Your task to perform on an android device: Open internet settings Image 0: 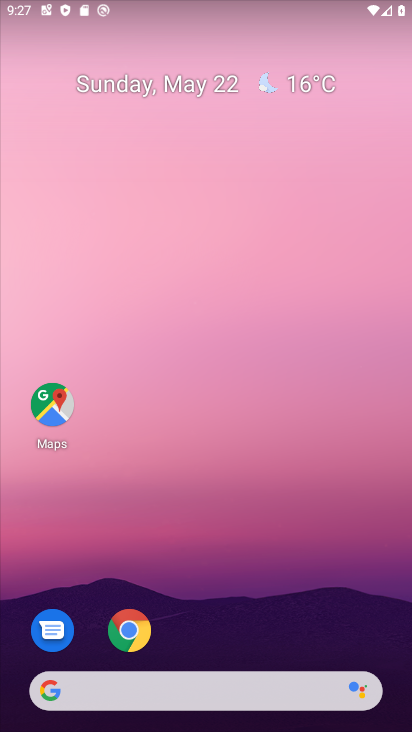
Step 0: drag from (384, 631) to (339, 20)
Your task to perform on an android device: Open internet settings Image 1: 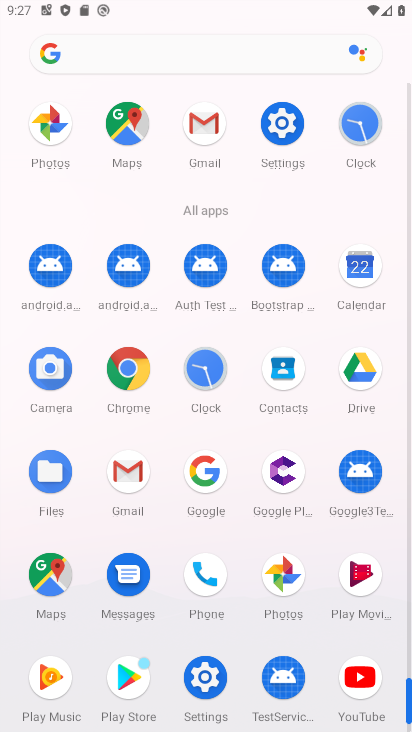
Step 1: click (205, 676)
Your task to perform on an android device: Open internet settings Image 2: 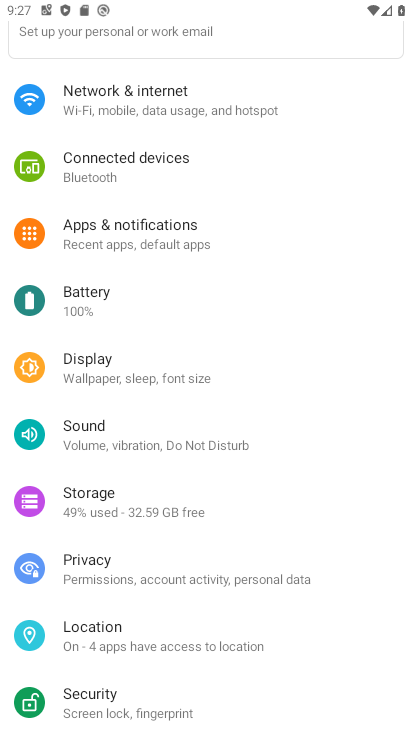
Step 2: click (133, 108)
Your task to perform on an android device: Open internet settings Image 3: 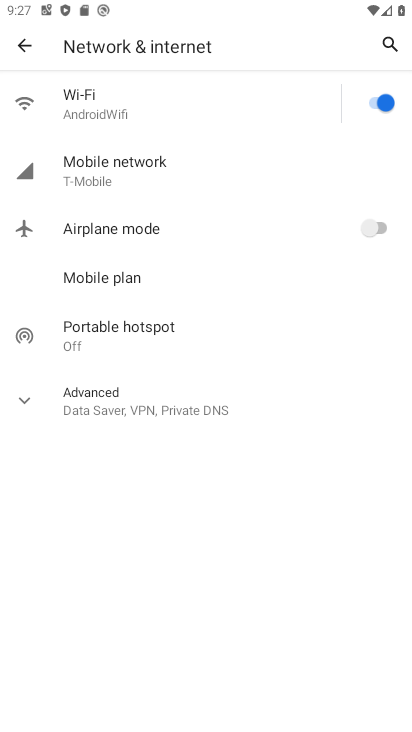
Step 3: click (21, 396)
Your task to perform on an android device: Open internet settings Image 4: 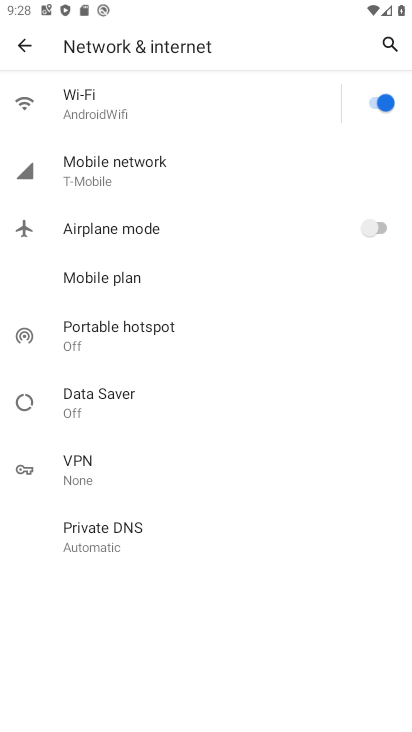
Step 4: click (97, 154)
Your task to perform on an android device: Open internet settings Image 5: 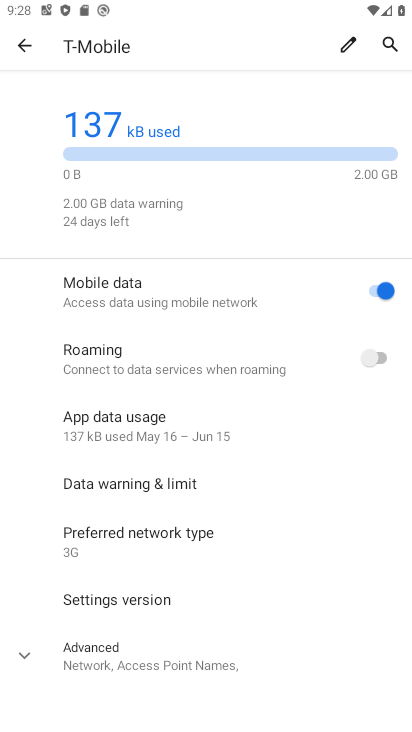
Step 5: task complete